Your task to perform on an android device: turn pop-ups off in chrome Image 0: 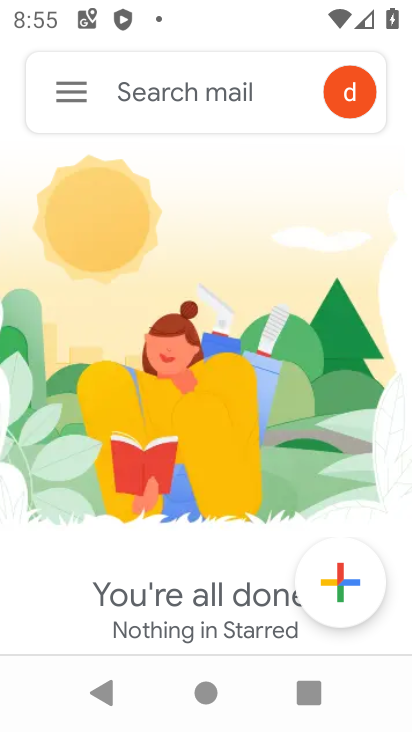
Step 0: press home button
Your task to perform on an android device: turn pop-ups off in chrome Image 1: 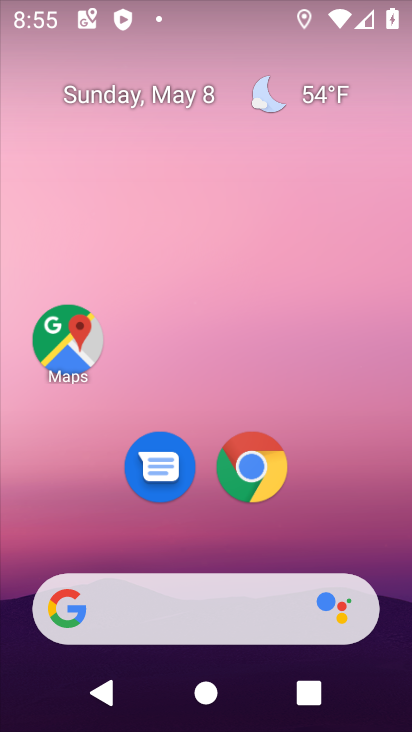
Step 1: click (257, 466)
Your task to perform on an android device: turn pop-ups off in chrome Image 2: 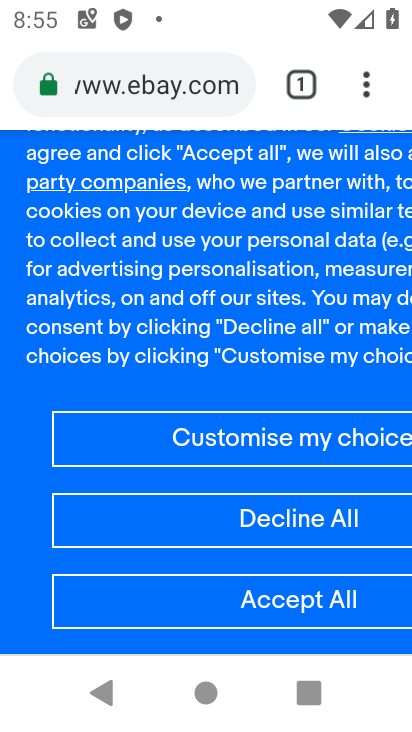
Step 2: click (363, 94)
Your task to perform on an android device: turn pop-ups off in chrome Image 3: 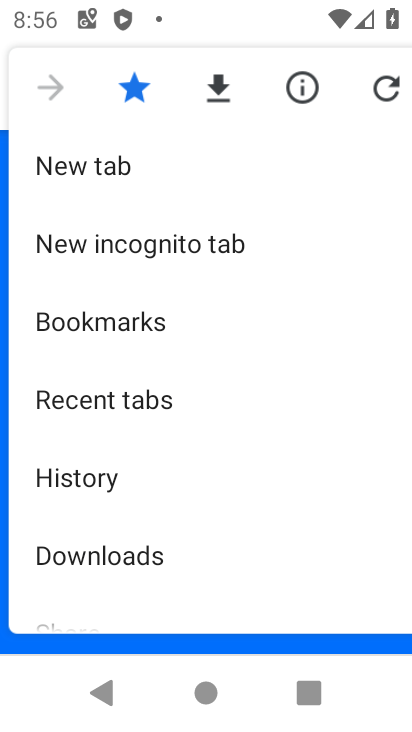
Step 3: drag from (185, 554) to (261, 168)
Your task to perform on an android device: turn pop-ups off in chrome Image 4: 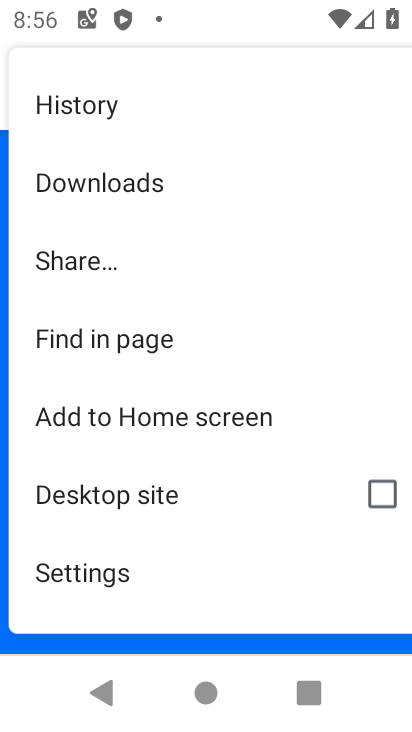
Step 4: drag from (219, 512) to (297, 136)
Your task to perform on an android device: turn pop-ups off in chrome Image 5: 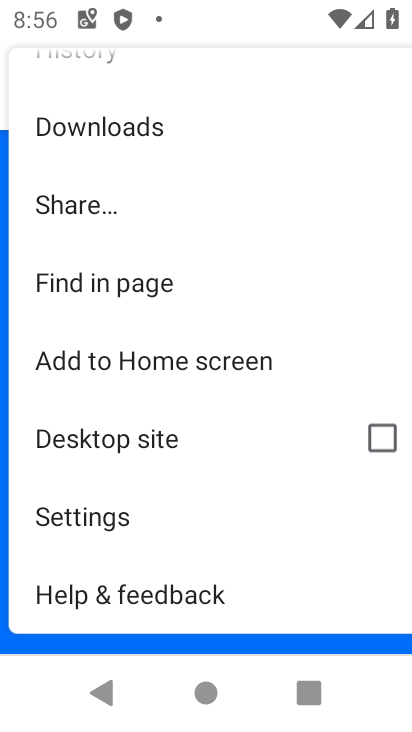
Step 5: click (90, 522)
Your task to perform on an android device: turn pop-ups off in chrome Image 6: 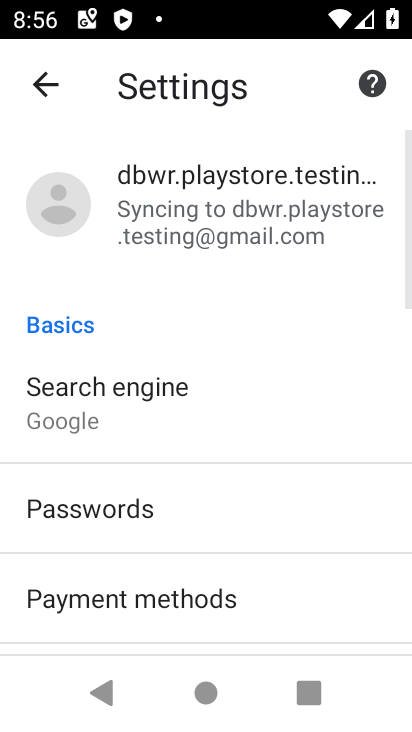
Step 6: drag from (305, 622) to (267, 167)
Your task to perform on an android device: turn pop-ups off in chrome Image 7: 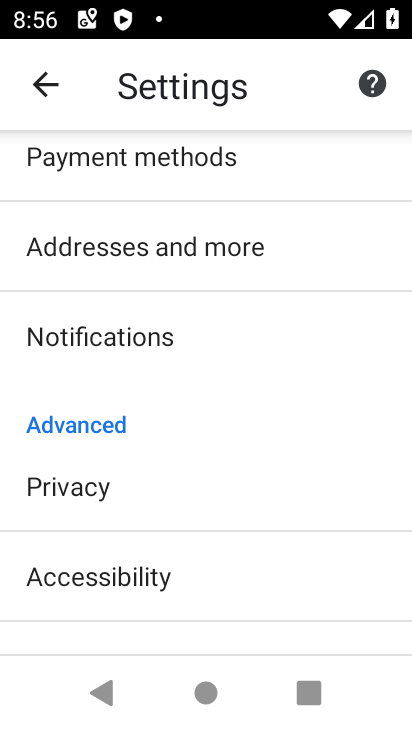
Step 7: drag from (229, 585) to (313, 121)
Your task to perform on an android device: turn pop-ups off in chrome Image 8: 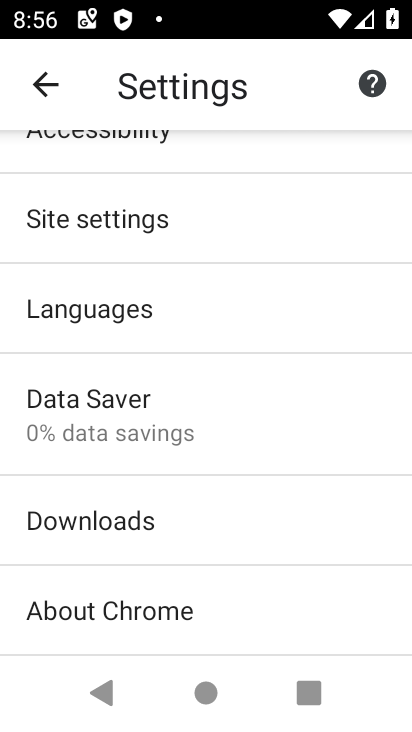
Step 8: click (122, 217)
Your task to perform on an android device: turn pop-ups off in chrome Image 9: 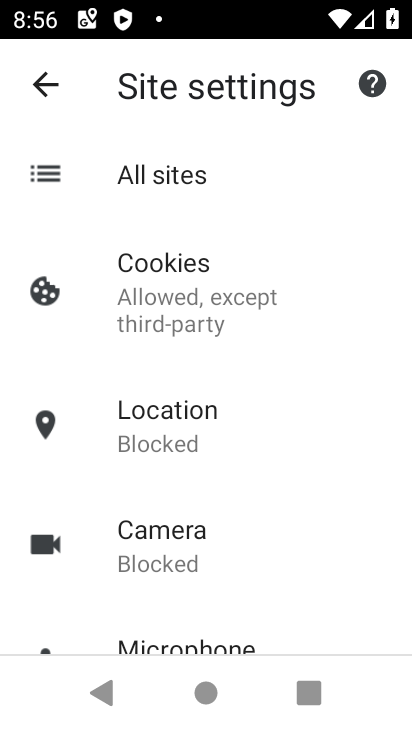
Step 9: drag from (258, 594) to (304, 114)
Your task to perform on an android device: turn pop-ups off in chrome Image 10: 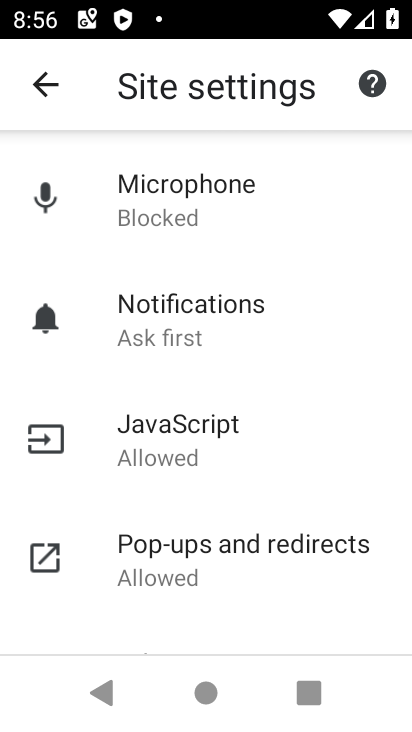
Step 10: click (137, 576)
Your task to perform on an android device: turn pop-ups off in chrome Image 11: 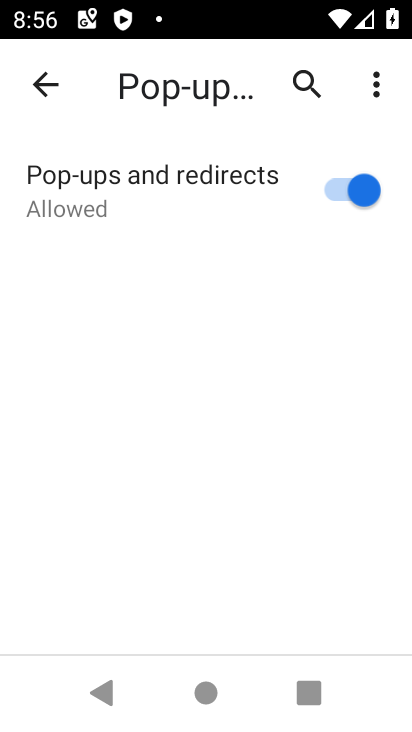
Step 11: click (332, 184)
Your task to perform on an android device: turn pop-ups off in chrome Image 12: 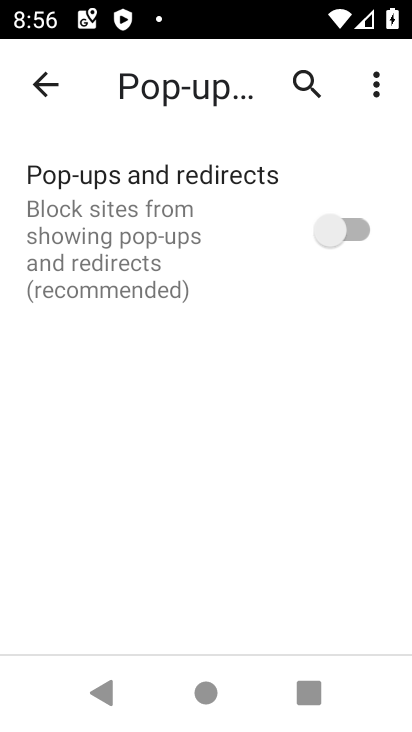
Step 12: task complete